Your task to perform on an android device: Where can I buy a nice beach bag? Image 0: 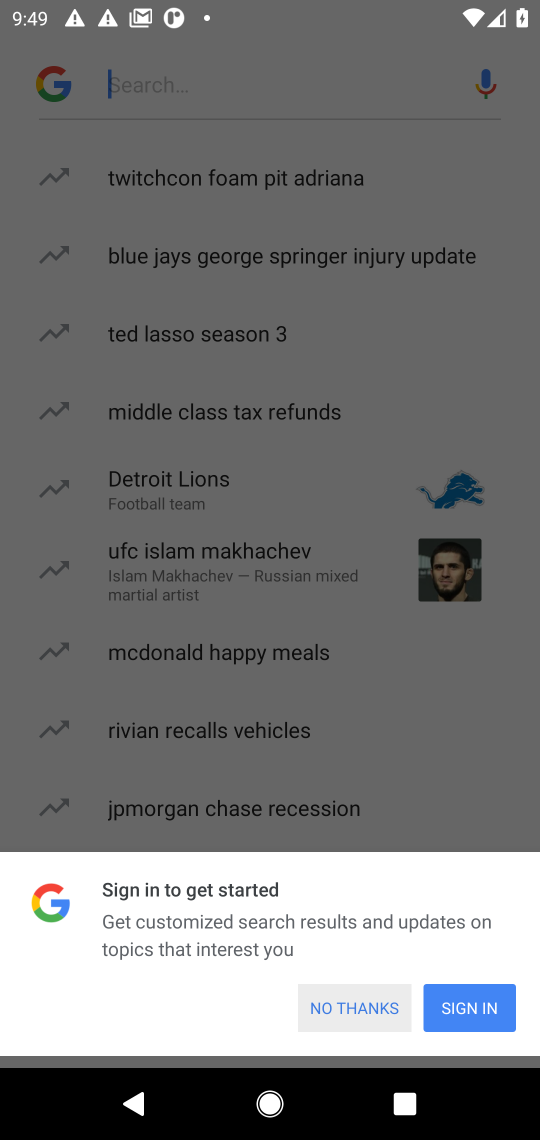
Step 0: press home button
Your task to perform on an android device: Where can I buy a nice beach bag? Image 1: 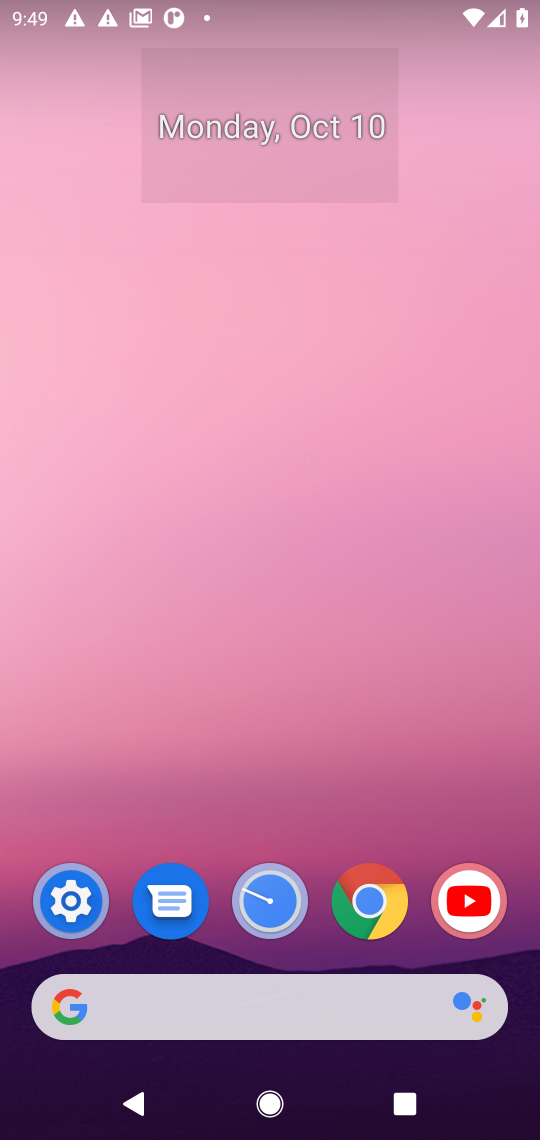
Step 1: click (266, 999)
Your task to perform on an android device: Where can I buy a nice beach bag? Image 2: 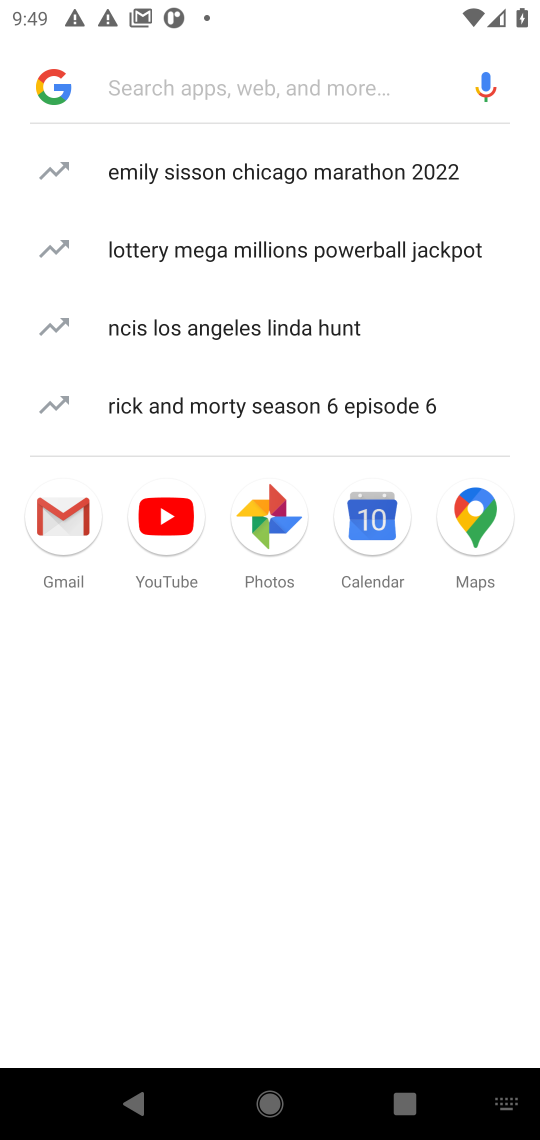
Step 2: type "Where can I buy a nice beach bag"
Your task to perform on an android device: Where can I buy a nice beach bag? Image 3: 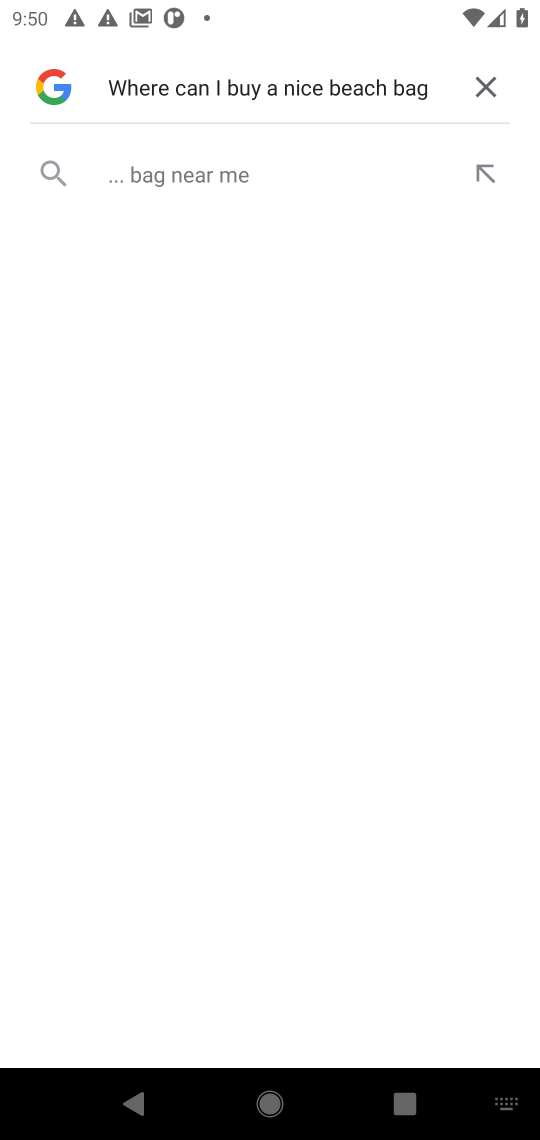
Step 3: press enter
Your task to perform on an android device: Where can I buy a nice beach bag? Image 4: 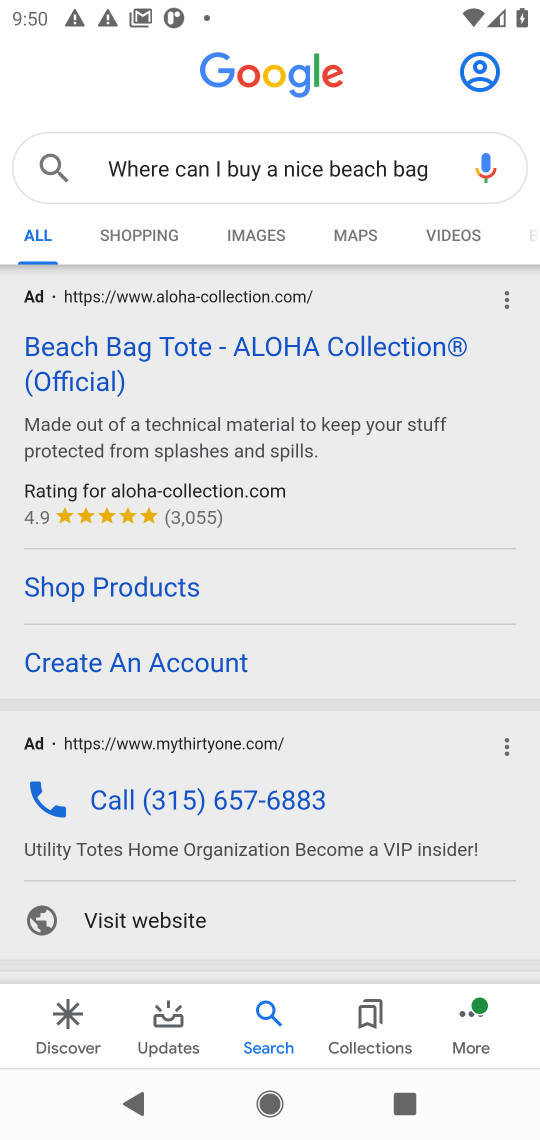
Step 4: click (346, 341)
Your task to perform on an android device: Where can I buy a nice beach bag? Image 5: 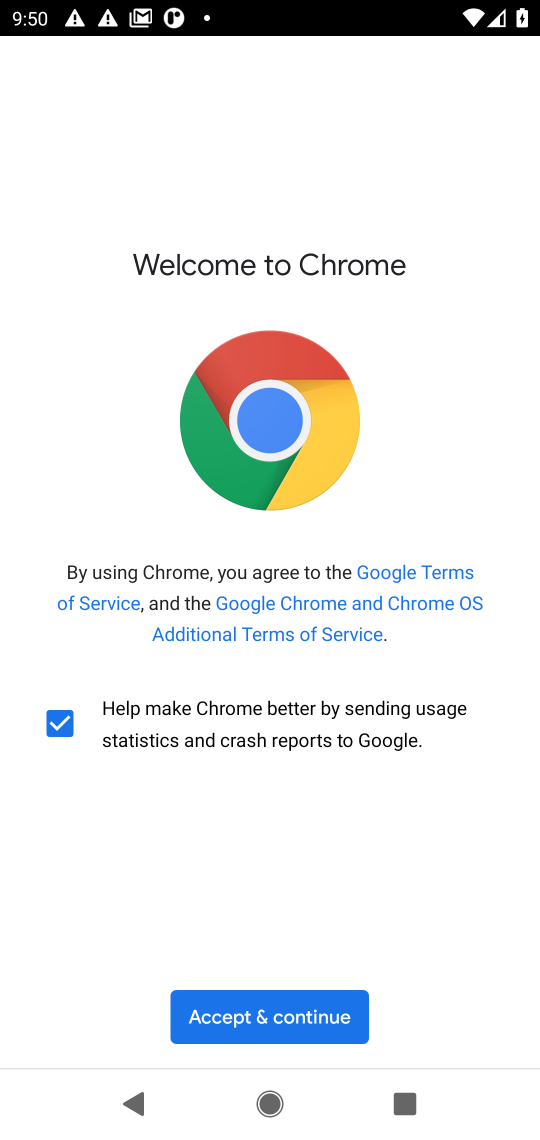
Step 5: click (275, 1016)
Your task to perform on an android device: Where can I buy a nice beach bag? Image 6: 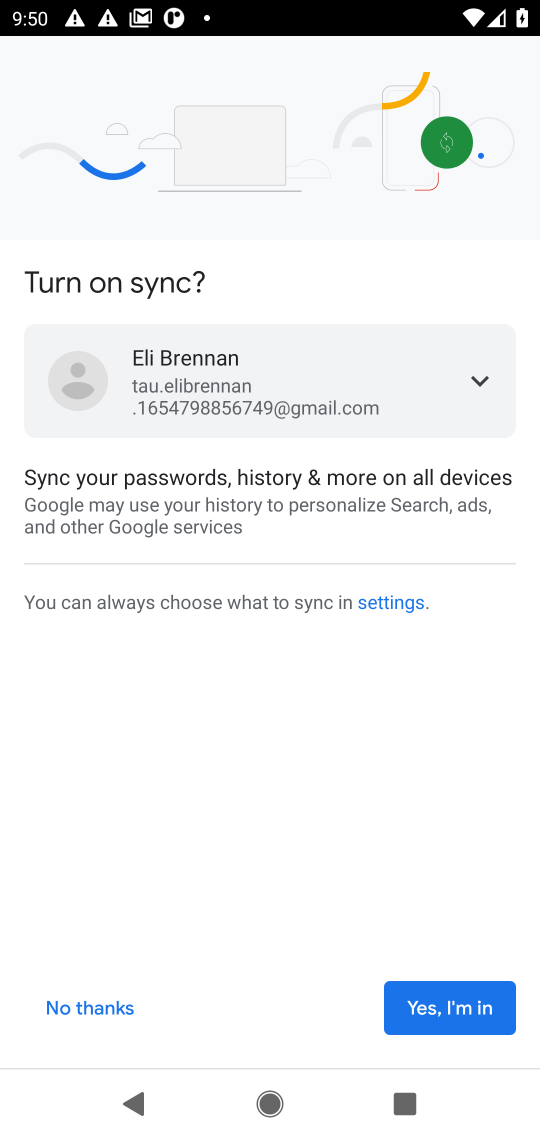
Step 6: click (444, 1020)
Your task to perform on an android device: Where can I buy a nice beach bag? Image 7: 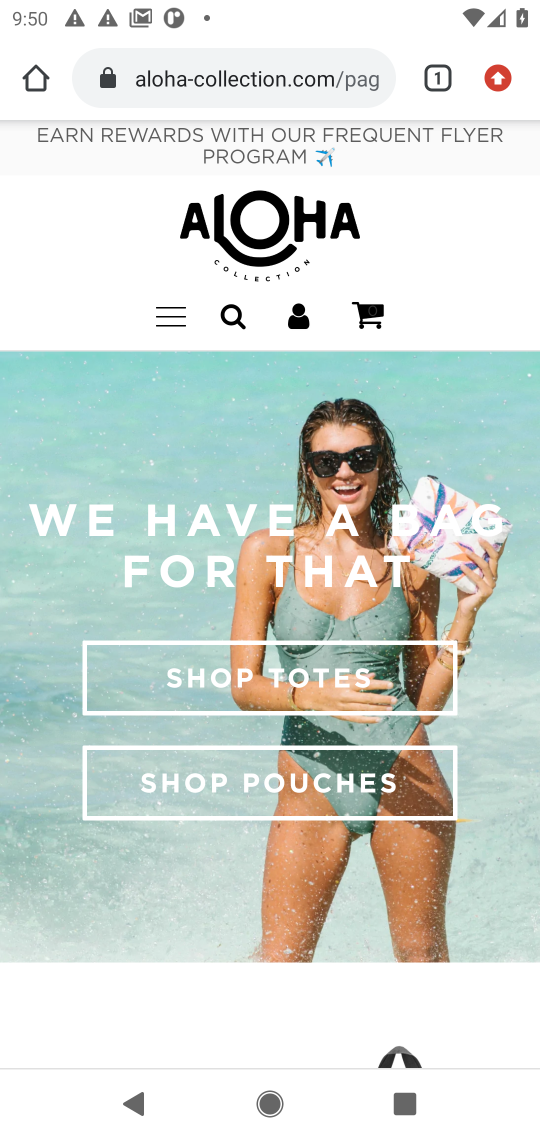
Step 7: task complete